Your task to perform on an android device: turn off location Image 0: 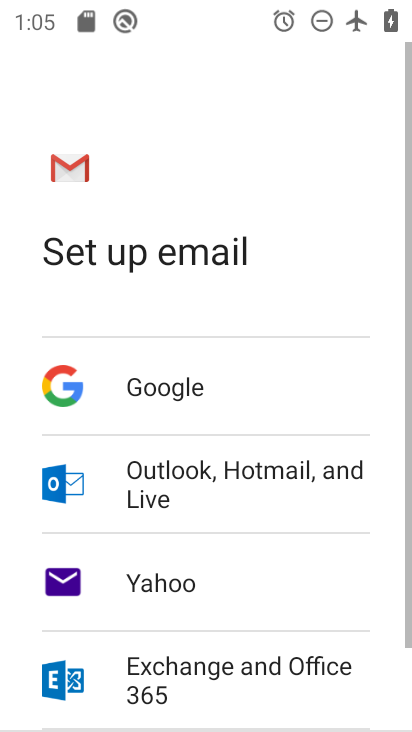
Step 0: press home button
Your task to perform on an android device: turn off location Image 1: 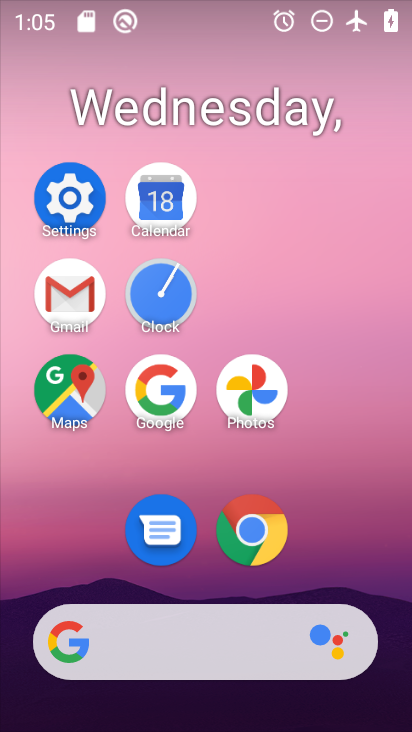
Step 1: click (66, 204)
Your task to perform on an android device: turn off location Image 2: 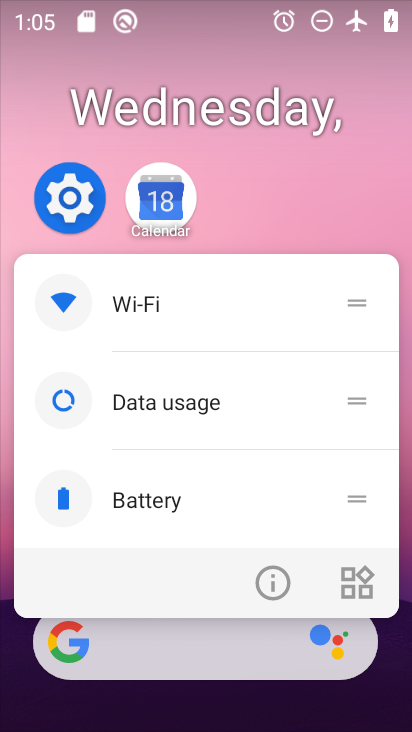
Step 2: click (71, 215)
Your task to perform on an android device: turn off location Image 3: 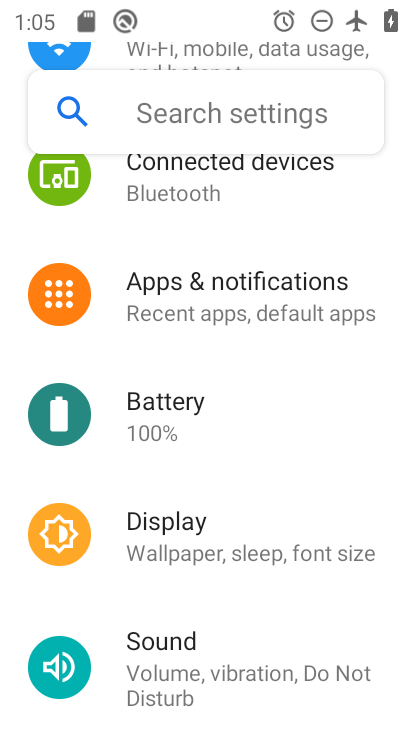
Step 3: drag from (278, 561) to (324, 191)
Your task to perform on an android device: turn off location Image 4: 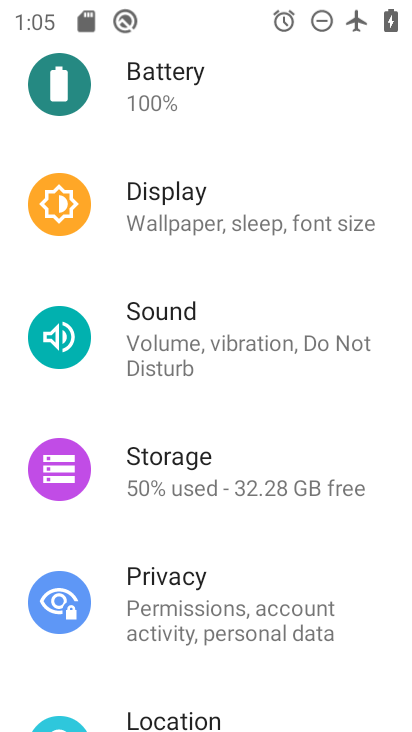
Step 4: click (211, 684)
Your task to perform on an android device: turn off location Image 5: 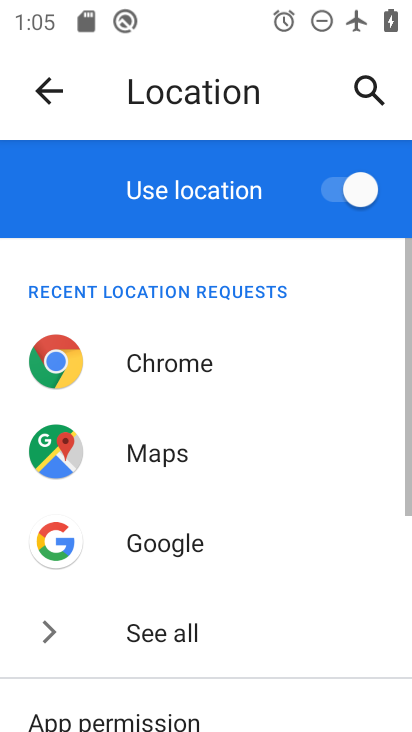
Step 5: click (362, 211)
Your task to perform on an android device: turn off location Image 6: 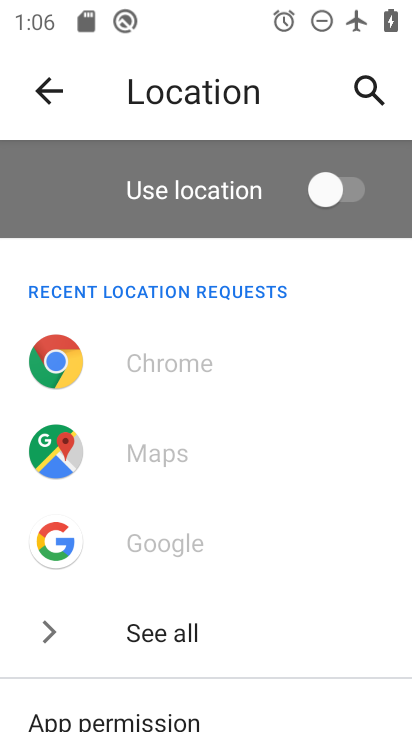
Step 6: task complete